Your task to perform on an android device: Open my contact list Image 0: 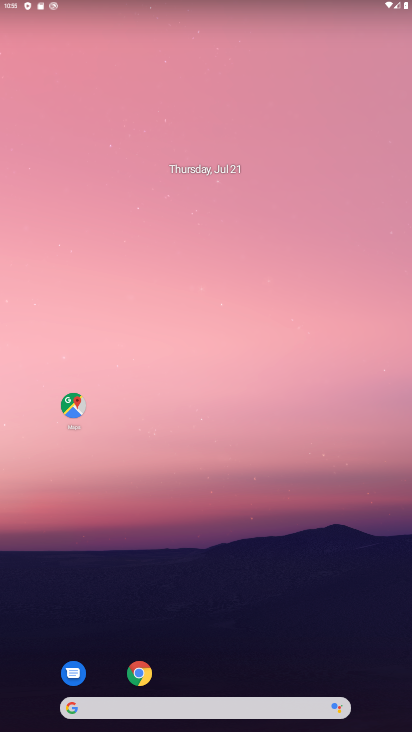
Step 0: drag from (251, 623) to (251, 163)
Your task to perform on an android device: Open my contact list Image 1: 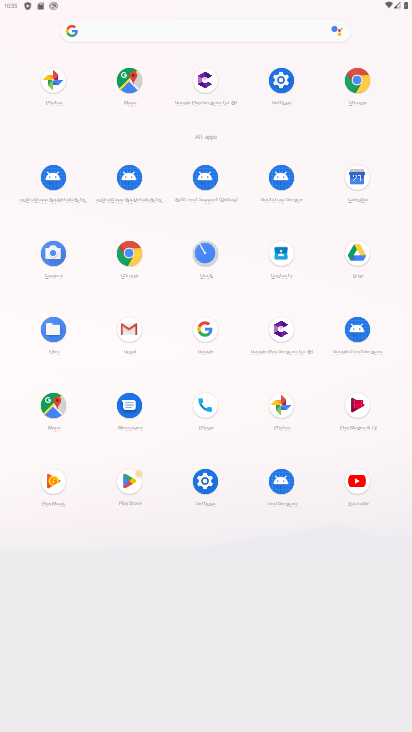
Step 1: click (274, 243)
Your task to perform on an android device: Open my contact list Image 2: 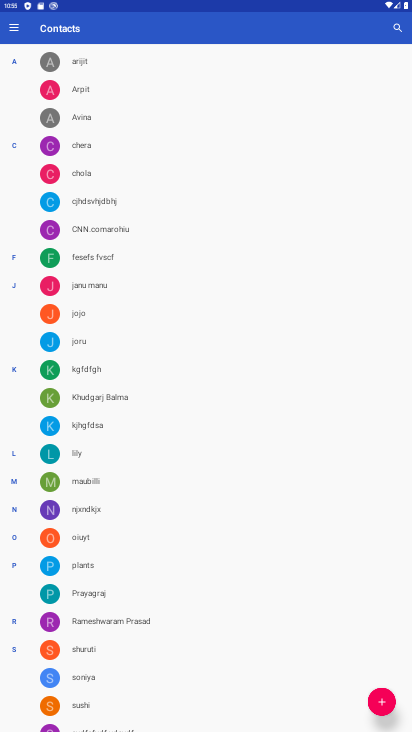
Step 2: task complete